Your task to perform on an android device: Open calendar and show me the third week of next month Image 0: 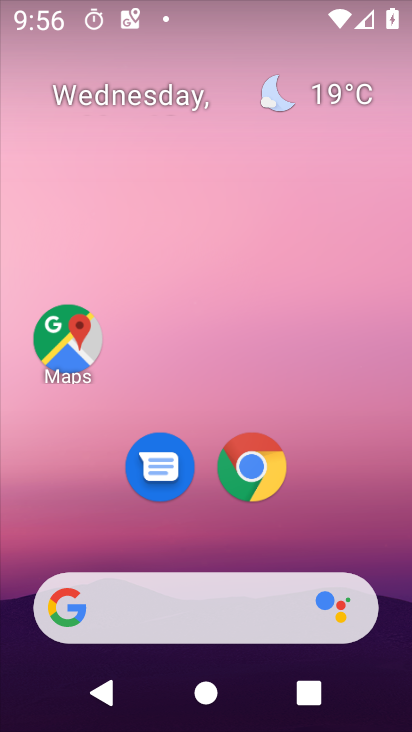
Step 0: click (134, 99)
Your task to perform on an android device: Open calendar and show me the third week of next month Image 1: 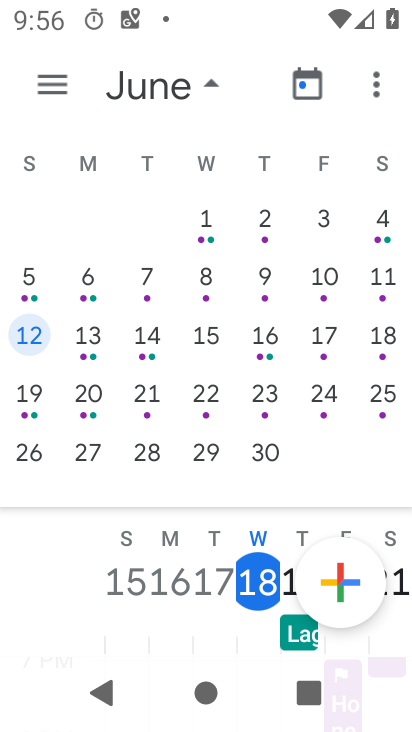
Step 1: task complete